Your task to perform on an android device: change text size in settings app Image 0: 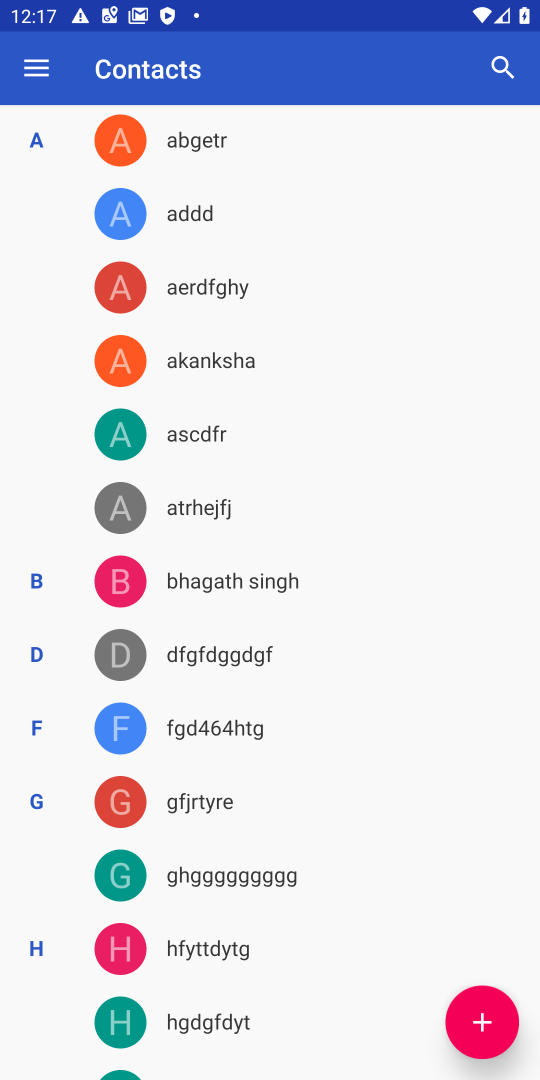
Step 0: press home button
Your task to perform on an android device: change text size in settings app Image 1: 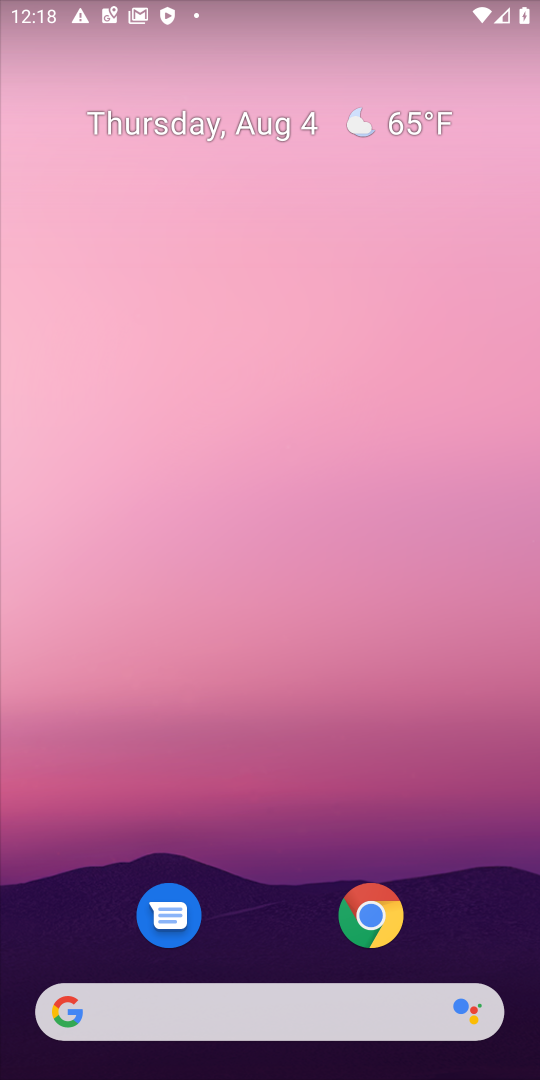
Step 1: drag from (261, 769) to (317, 150)
Your task to perform on an android device: change text size in settings app Image 2: 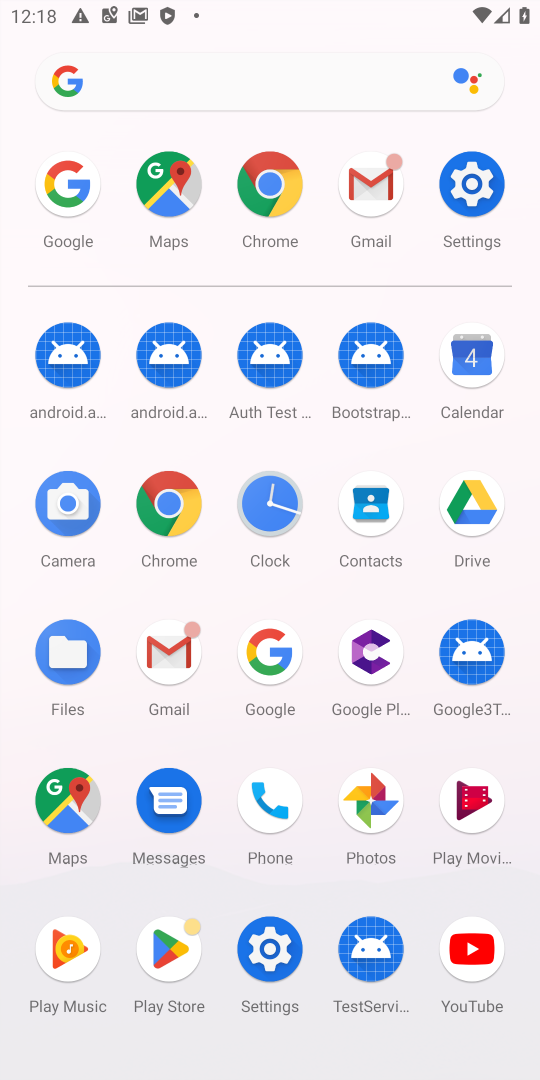
Step 2: click (468, 175)
Your task to perform on an android device: change text size in settings app Image 3: 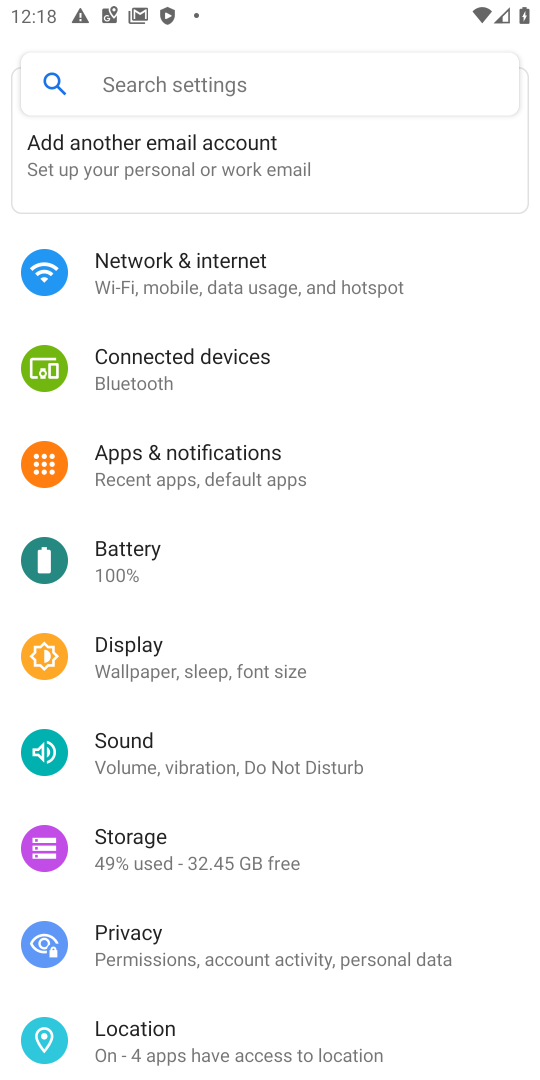
Step 3: drag from (362, 907) to (379, 510)
Your task to perform on an android device: change text size in settings app Image 4: 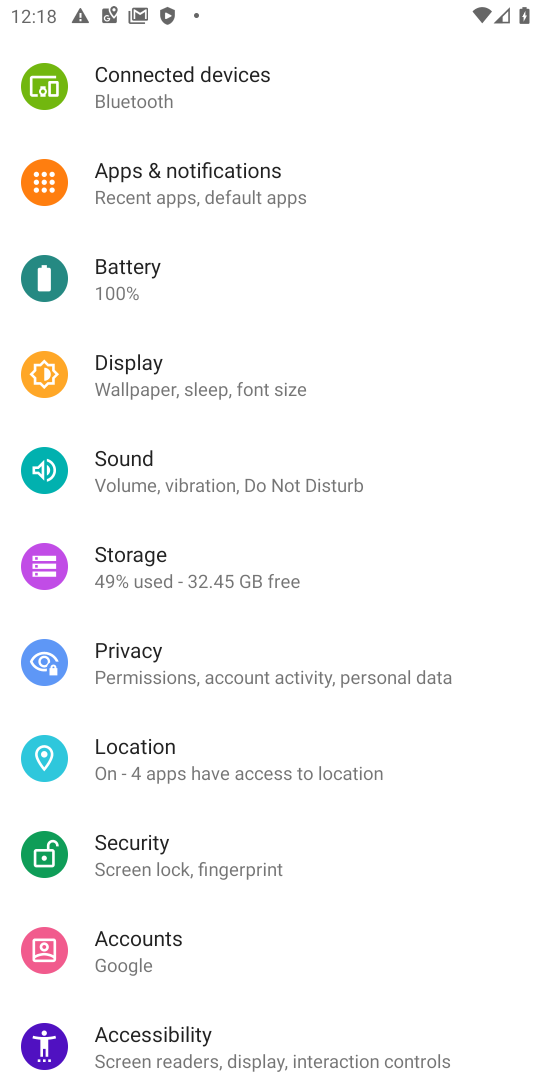
Step 4: drag from (258, 768) to (288, 535)
Your task to perform on an android device: change text size in settings app Image 5: 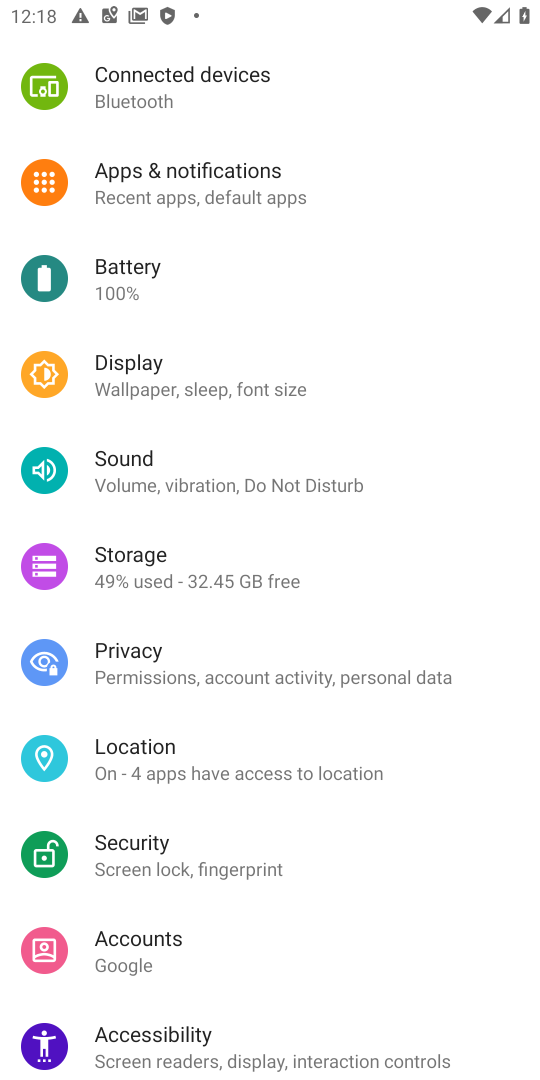
Step 5: drag from (340, 841) to (370, 470)
Your task to perform on an android device: change text size in settings app Image 6: 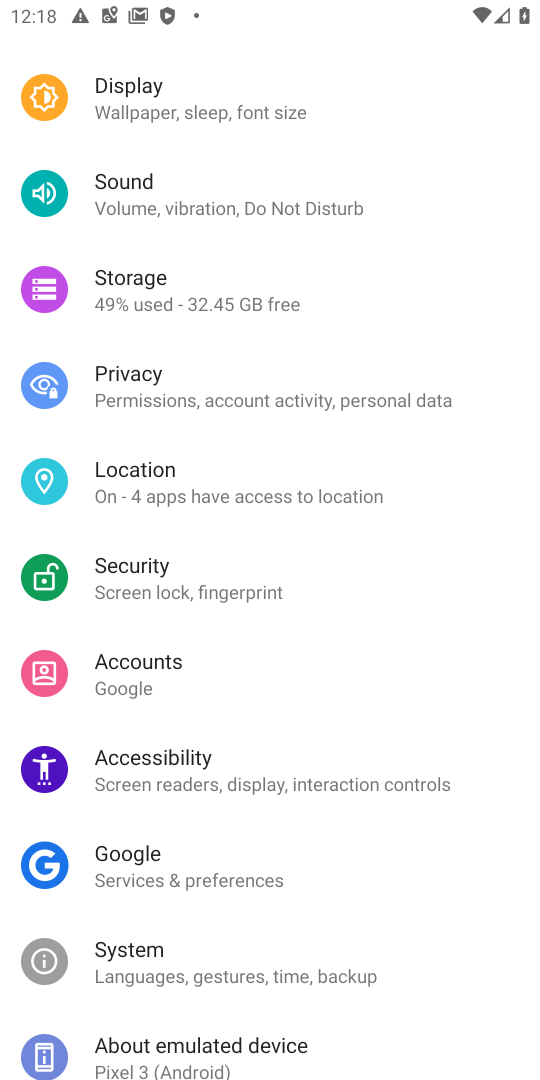
Step 6: drag from (245, 607) to (441, 1021)
Your task to perform on an android device: change text size in settings app Image 7: 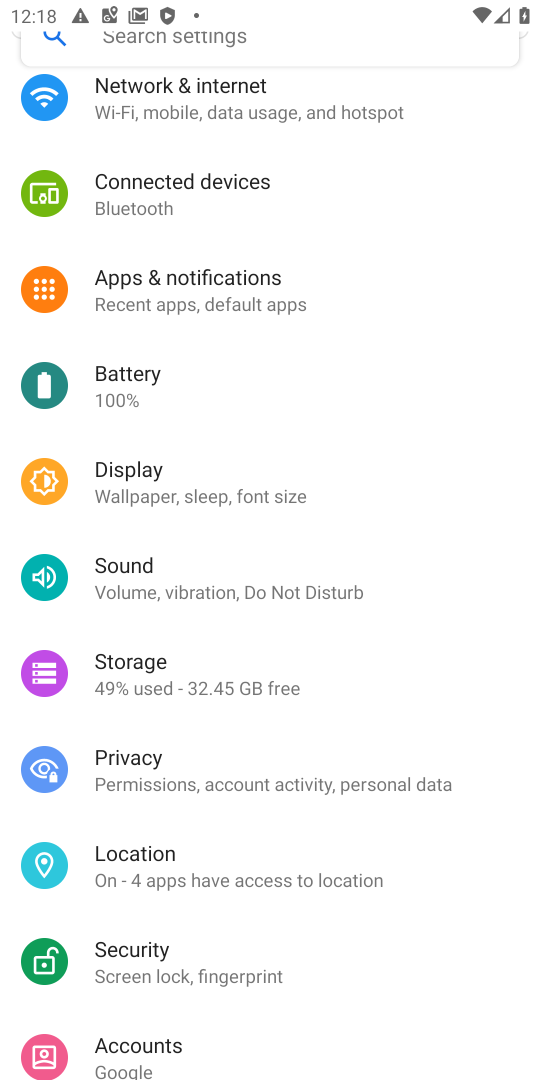
Step 7: click (214, 500)
Your task to perform on an android device: change text size in settings app Image 8: 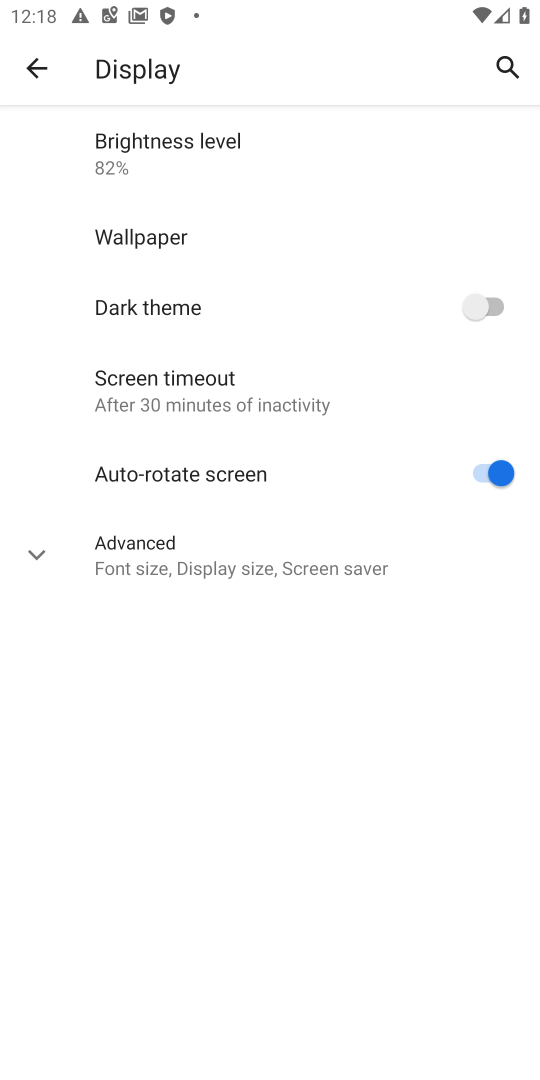
Step 8: click (305, 571)
Your task to perform on an android device: change text size in settings app Image 9: 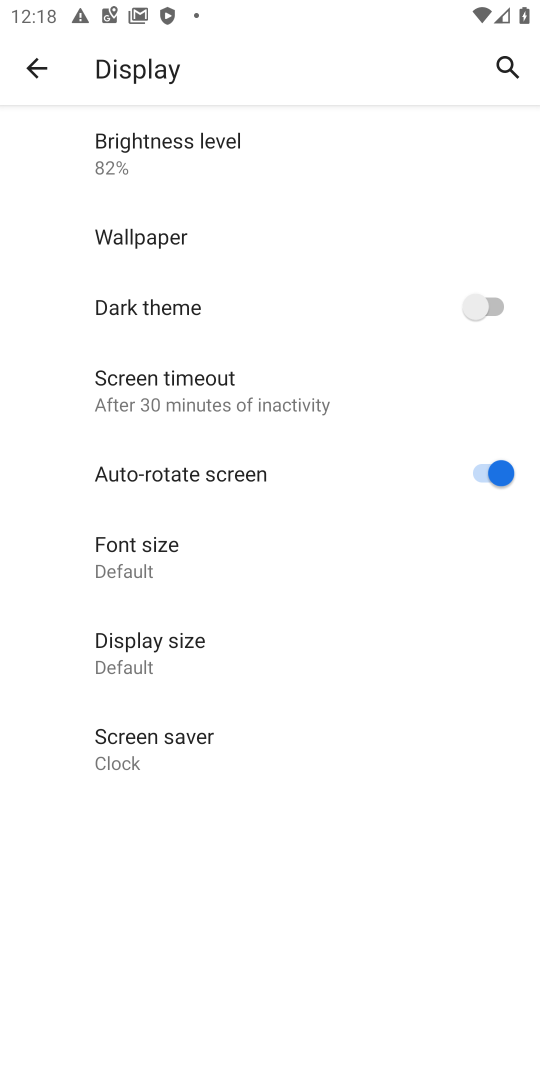
Step 9: click (152, 568)
Your task to perform on an android device: change text size in settings app Image 10: 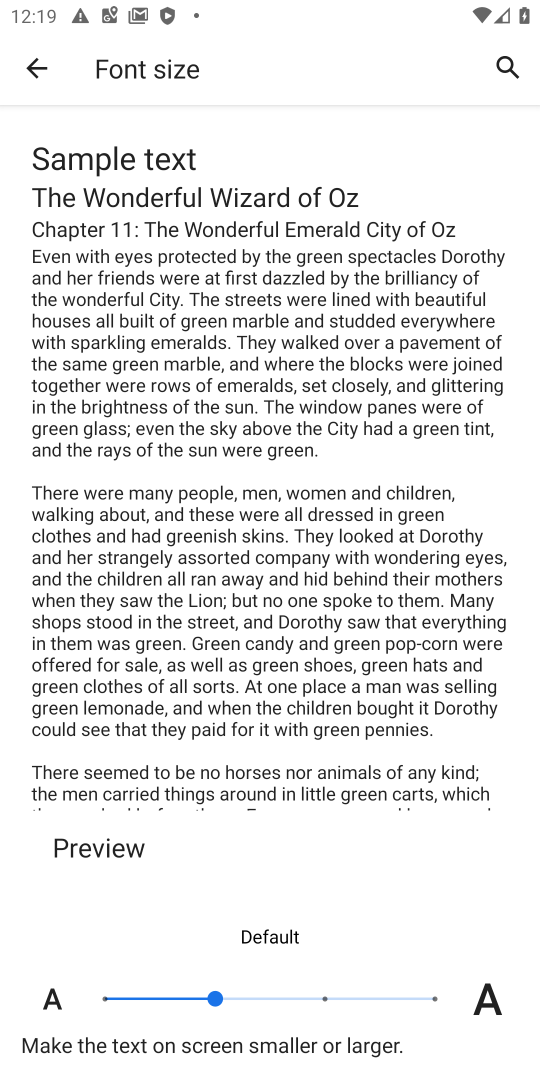
Step 10: click (315, 1005)
Your task to perform on an android device: change text size in settings app Image 11: 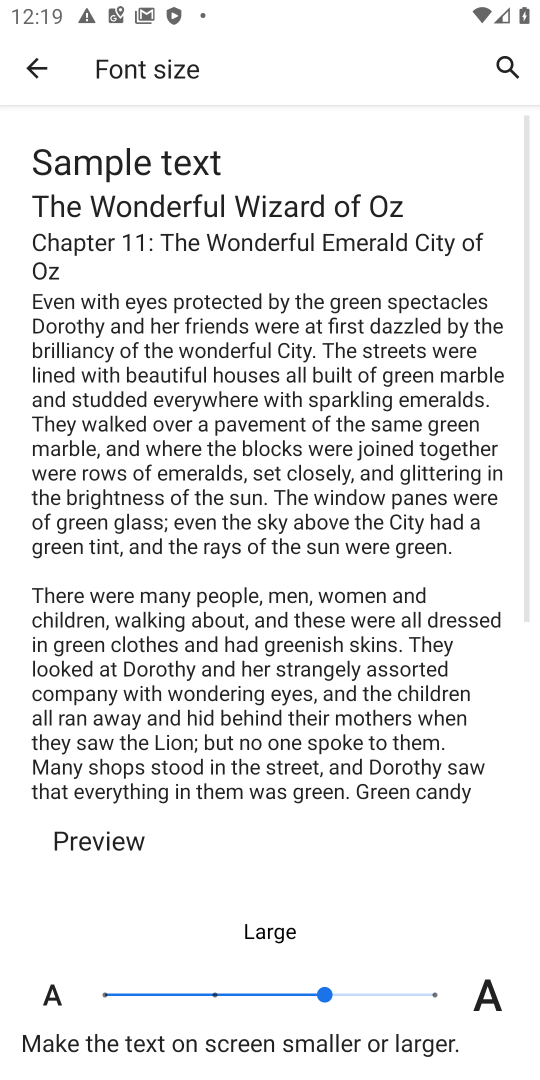
Step 11: task complete